Your task to perform on an android device: What's on my calendar tomorrow? Image 0: 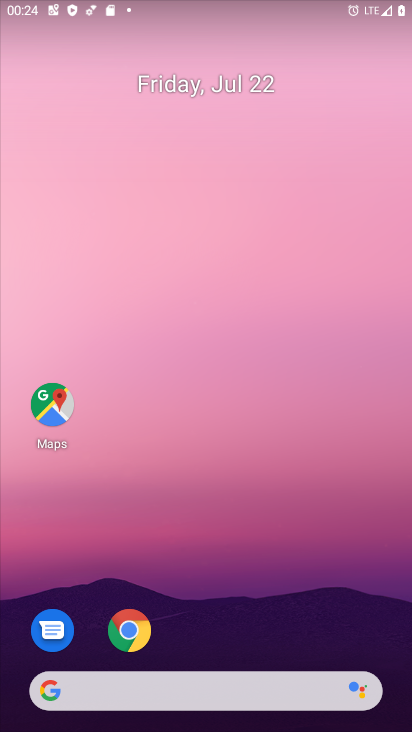
Step 0: drag from (230, 634) to (149, 101)
Your task to perform on an android device: What's on my calendar tomorrow? Image 1: 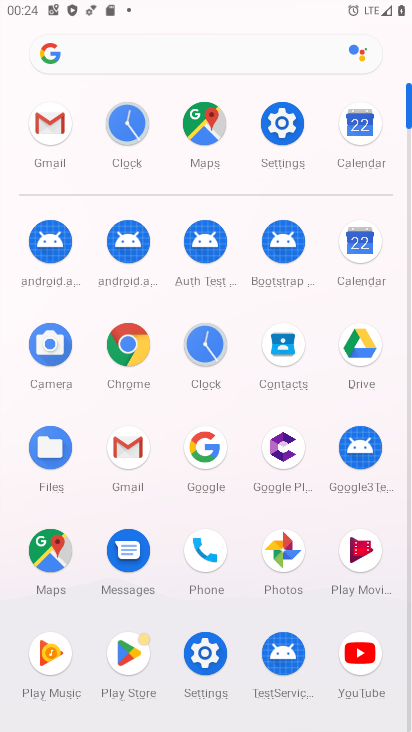
Step 1: click (364, 129)
Your task to perform on an android device: What's on my calendar tomorrow? Image 2: 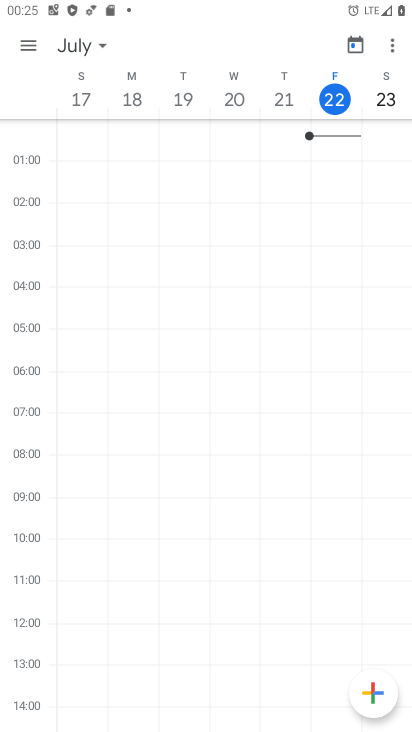
Step 2: click (78, 47)
Your task to perform on an android device: What's on my calendar tomorrow? Image 3: 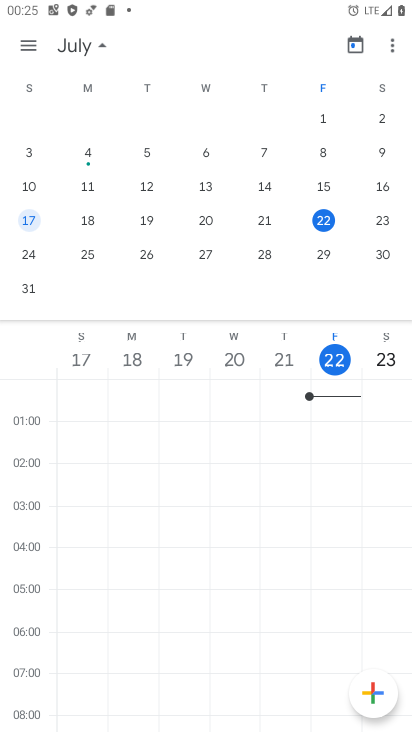
Step 3: click (392, 362)
Your task to perform on an android device: What's on my calendar tomorrow? Image 4: 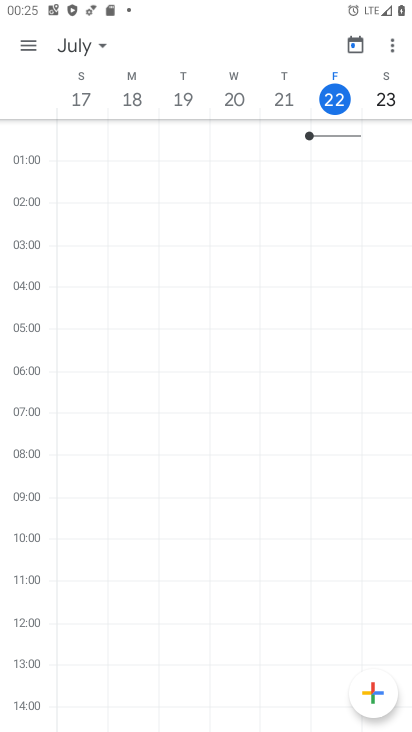
Step 4: click (384, 100)
Your task to perform on an android device: What's on my calendar tomorrow? Image 5: 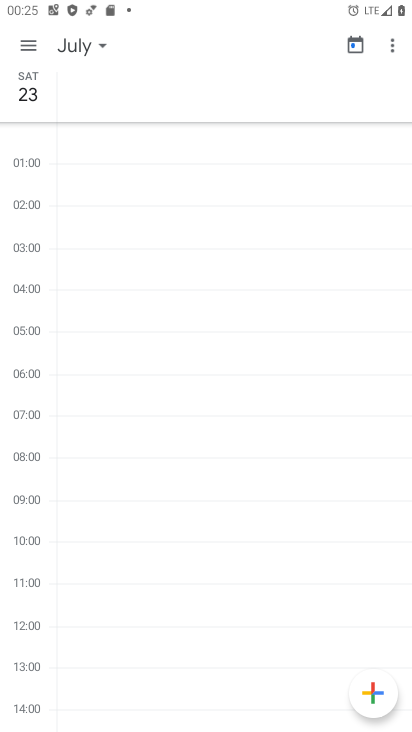
Step 5: drag from (262, 603) to (233, 152)
Your task to perform on an android device: What's on my calendar tomorrow? Image 6: 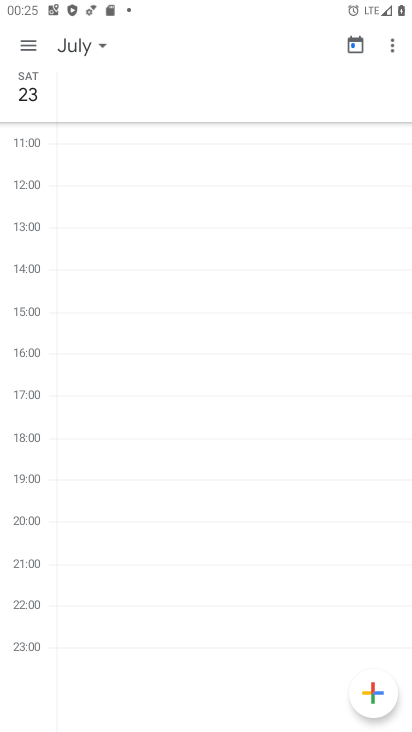
Step 6: click (195, 709)
Your task to perform on an android device: What's on my calendar tomorrow? Image 7: 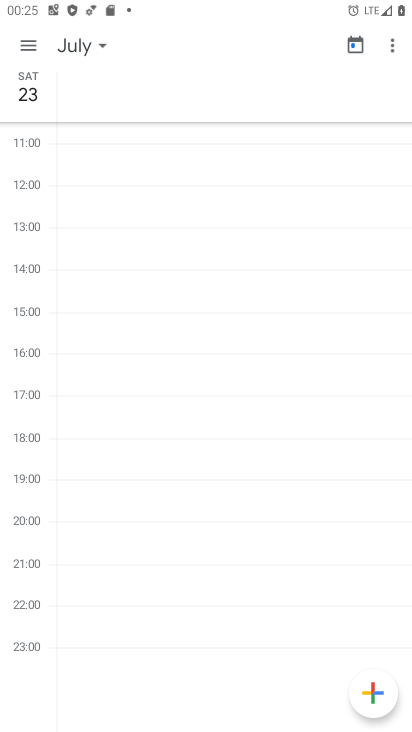
Step 7: click (190, 695)
Your task to perform on an android device: What's on my calendar tomorrow? Image 8: 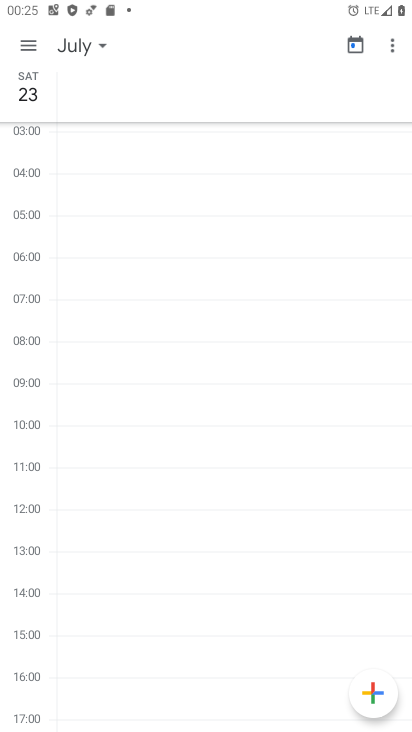
Step 8: task complete